Your task to perform on an android device: Open Youtube and go to the subscriptions tab Image 0: 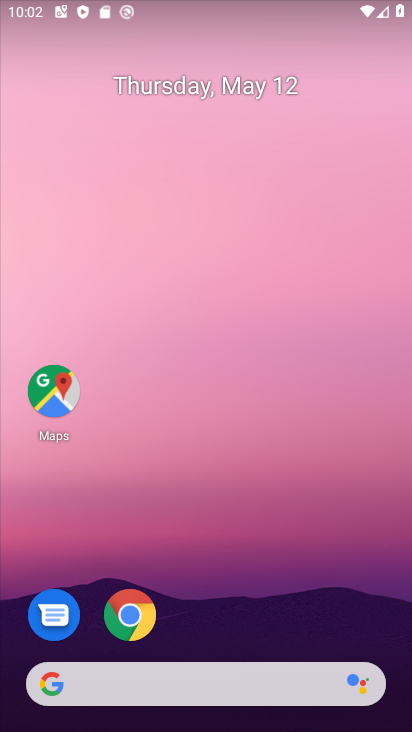
Step 0: drag from (223, 725) to (225, 109)
Your task to perform on an android device: Open Youtube and go to the subscriptions tab Image 1: 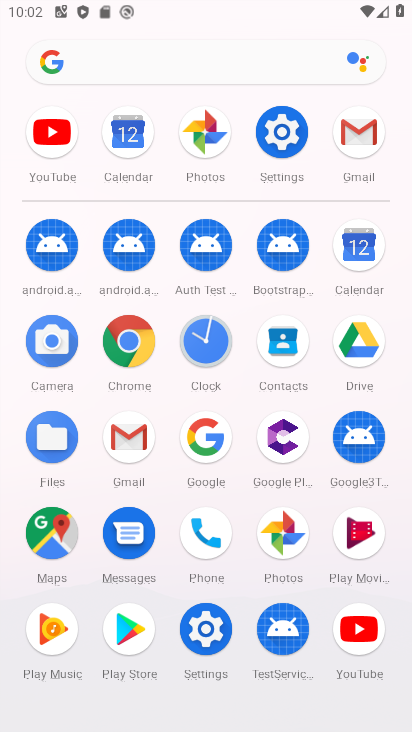
Step 1: click (360, 619)
Your task to perform on an android device: Open Youtube and go to the subscriptions tab Image 2: 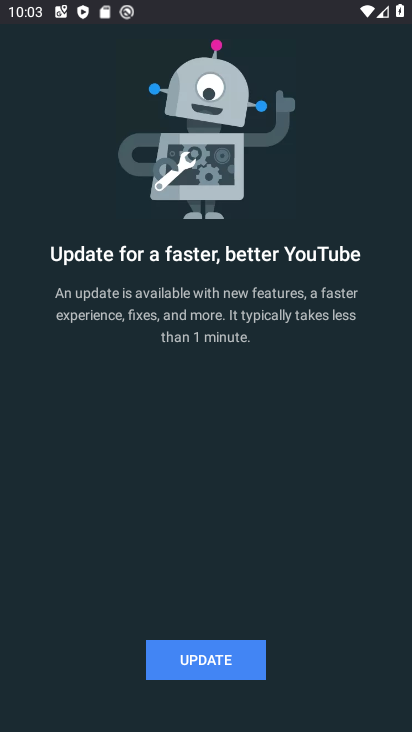
Step 2: task complete